Your task to perform on an android device: Search for Mexican restaurants on Maps Image 0: 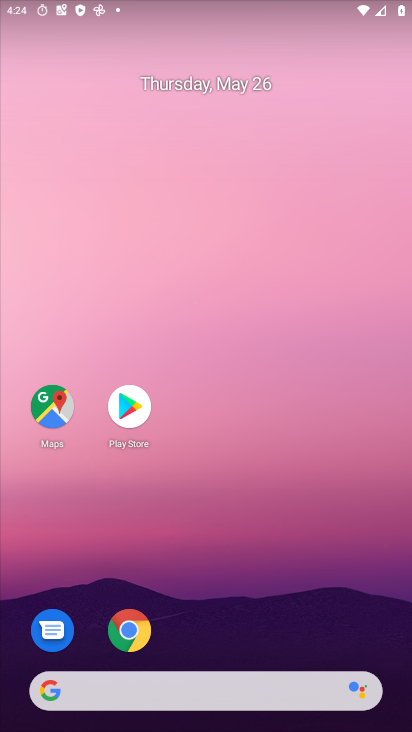
Step 0: click (52, 420)
Your task to perform on an android device: Search for Mexican restaurants on Maps Image 1: 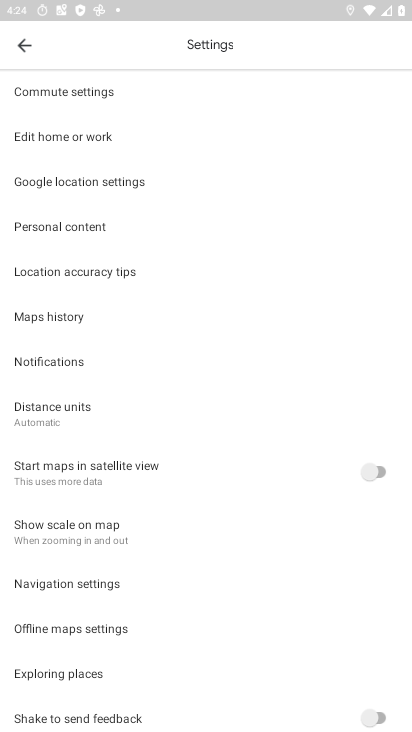
Step 1: click (23, 47)
Your task to perform on an android device: Search for Mexican restaurants on Maps Image 2: 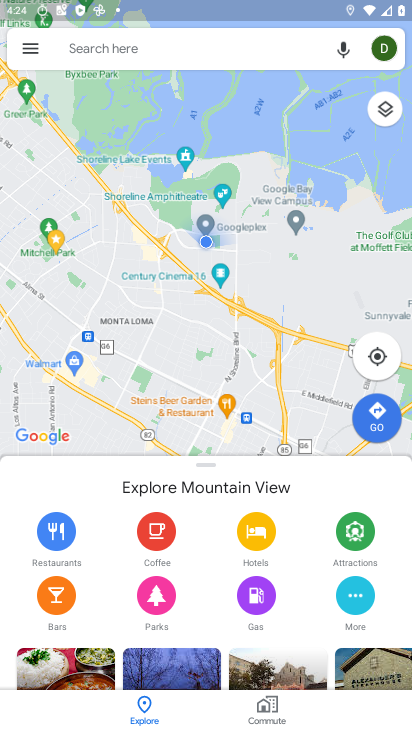
Step 2: click (134, 50)
Your task to perform on an android device: Search for Mexican restaurants on Maps Image 3: 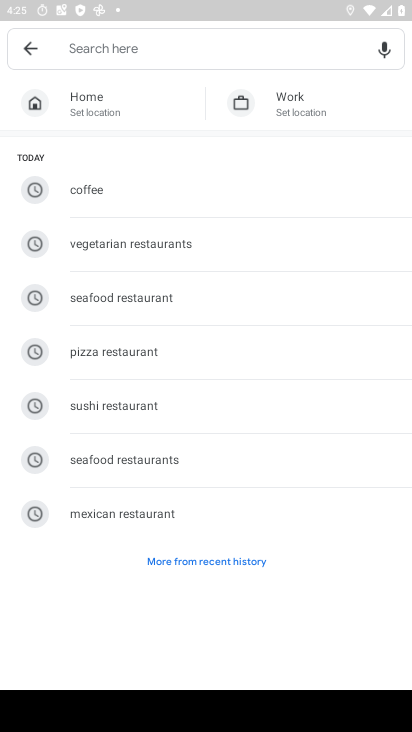
Step 3: click (138, 507)
Your task to perform on an android device: Search for Mexican restaurants on Maps Image 4: 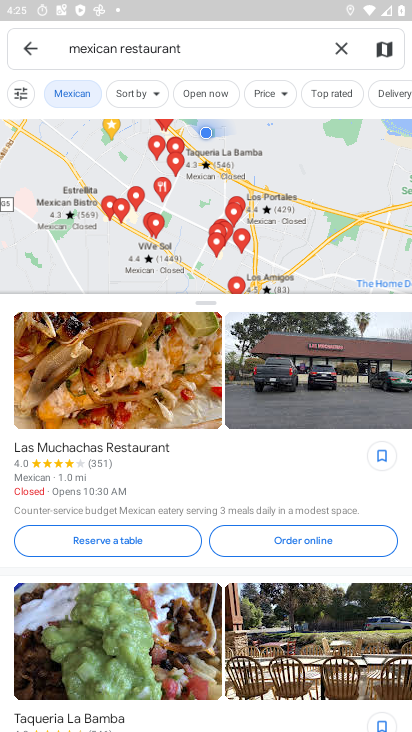
Step 4: task complete